Your task to perform on an android device: Is it going to rain today? Image 0: 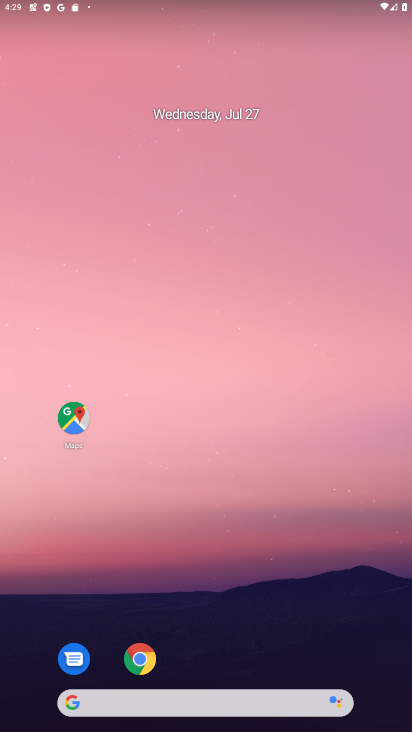
Step 0: drag from (280, 638) to (210, 242)
Your task to perform on an android device: Is it going to rain today? Image 1: 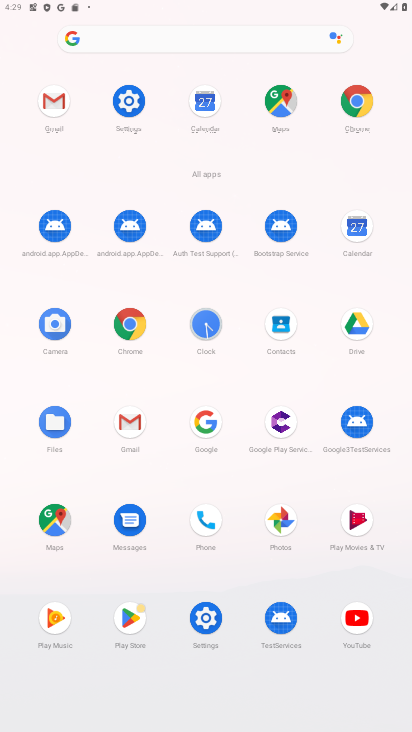
Step 1: click (347, 105)
Your task to perform on an android device: Is it going to rain today? Image 2: 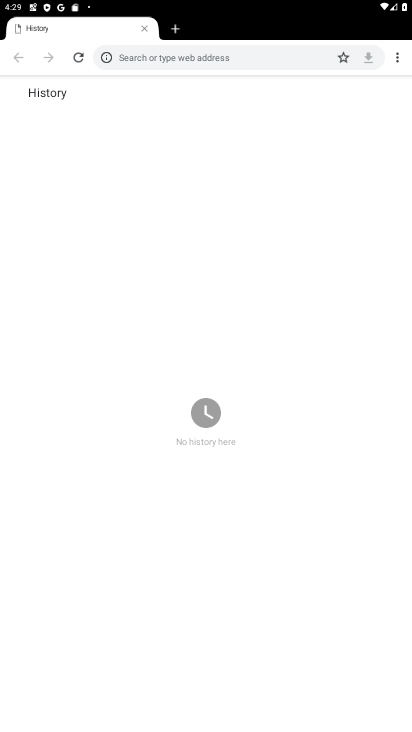
Step 2: click (168, 55)
Your task to perform on an android device: Is it going to rain today? Image 3: 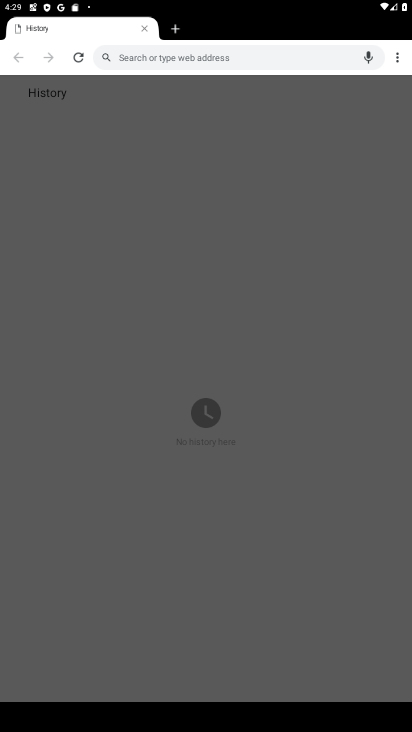
Step 3: type "Is it going to rain today?"
Your task to perform on an android device: Is it going to rain today? Image 4: 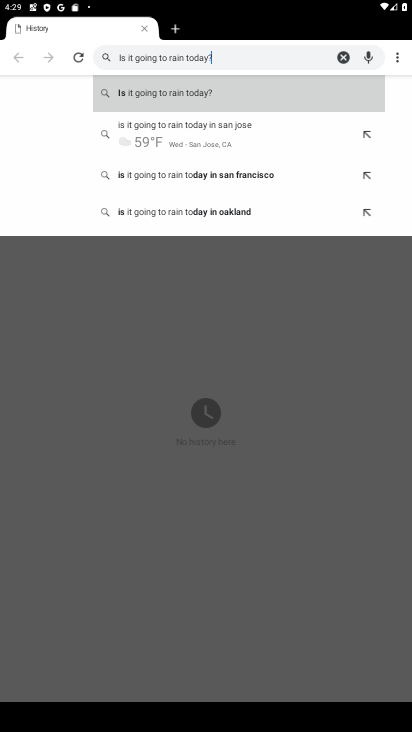
Step 4: click (187, 85)
Your task to perform on an android device: Is it going to rain today? Image 5: 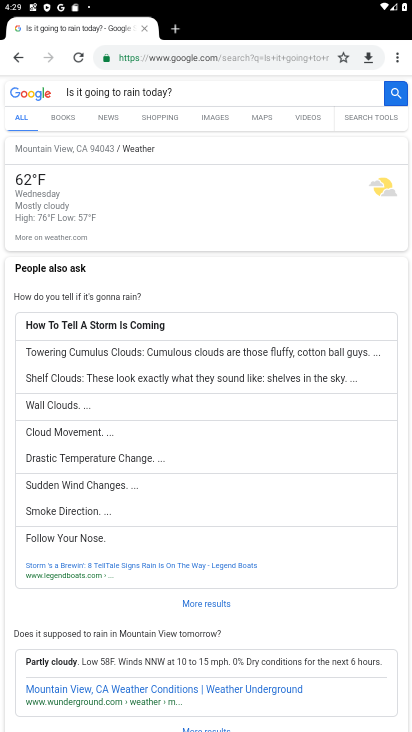
Step 5: task complete